Your task to perform on an android device: Is it going to rain this weekend? Image 0: 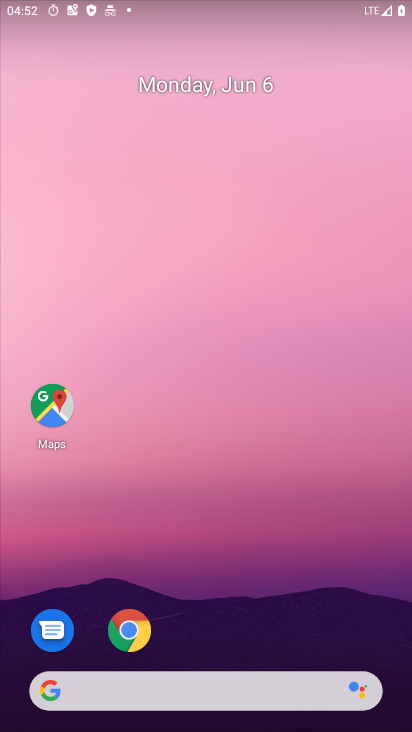
Step 0: drag from (245, 561) to (264, 137)
Your task to perform on an android device: Is it going to rain this weekend? Image 1: 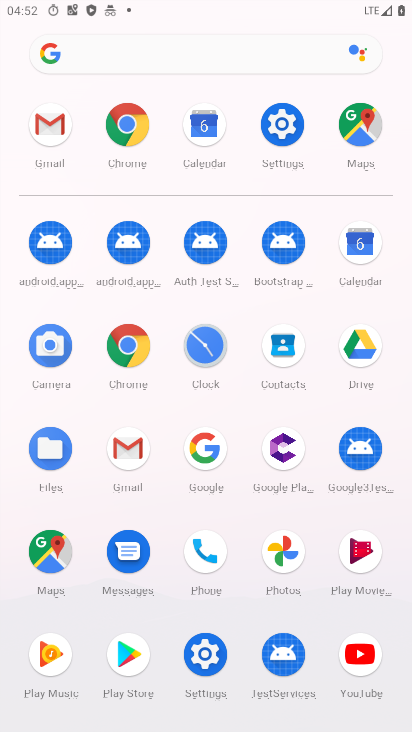
Step 1: click (125, 344)
Your task to perform on an android device: Is it going to rain this weekend? Image 2: 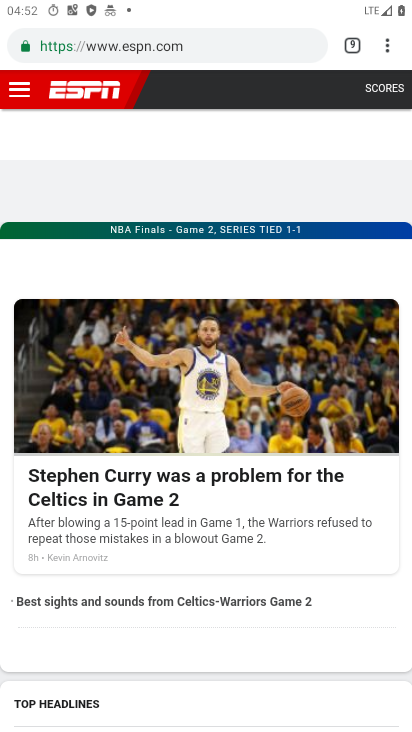
Step 2: click (206, 44)
Your task to perform on an android device: Is it going to rain this weekend? Image 3: 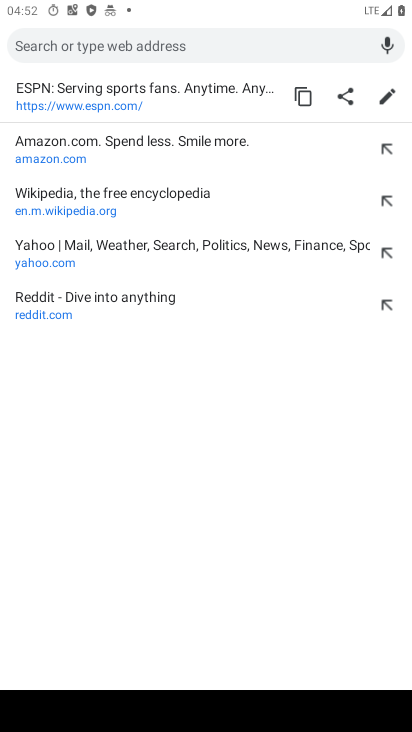
Step 3: type "Is it going to rain this weekend?"
Your task to perform on an android device: Is it going to rain this weekend? Image 4: 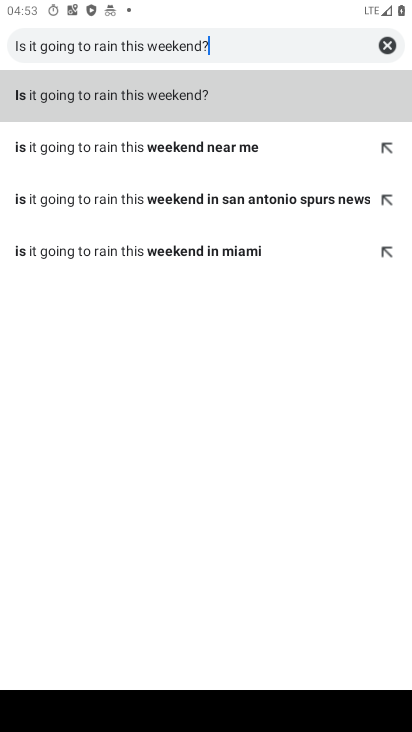
Step 4: click (91, 93)
Your task to perform on an android device: Is it going to rain this weekend? Image 5: 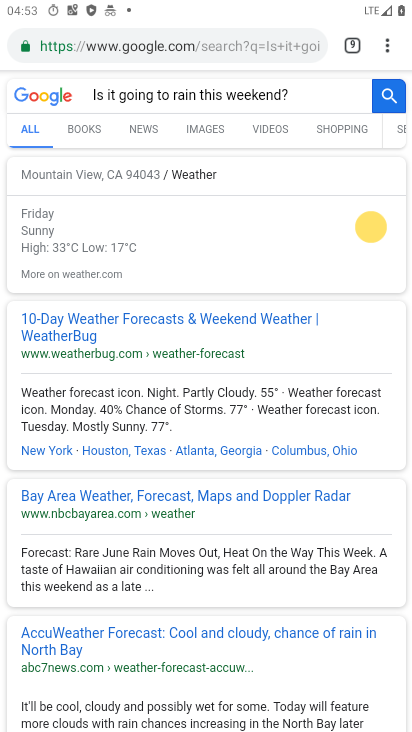
Step 5: task complete